Your task to perform on an android device: show emergency info Image 0: 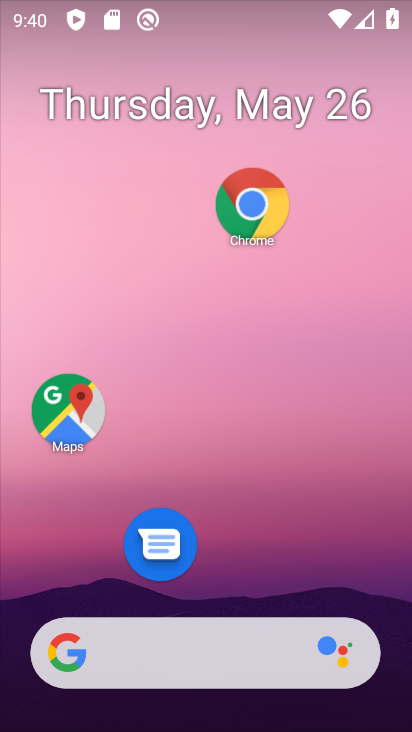
Step 0: press home button
Your task to perform on an android device: show emergency info Image 1: 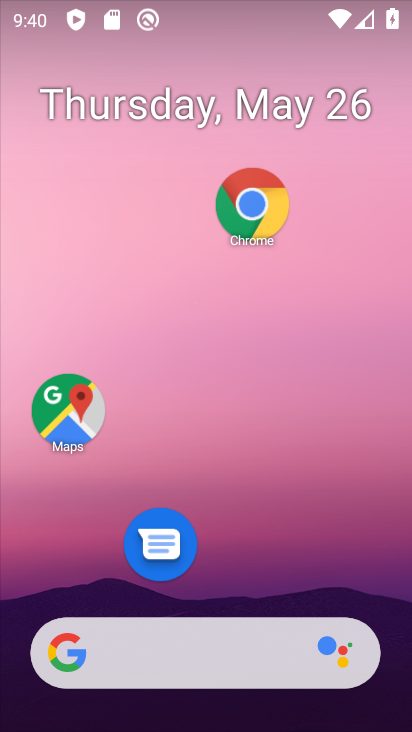
Step 1: drag from (216, 578) to (213, 78)
Your task to perform on an android device: show emergency info Image 2: 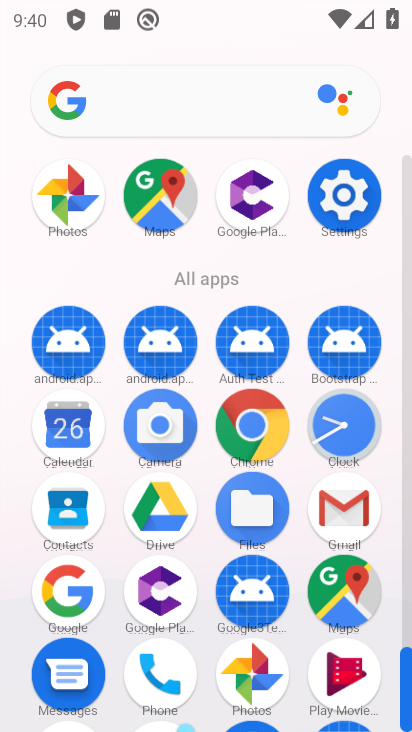
Step 2: click (342, 187)
Your task to perform on an android device: show emergency info Image 3: 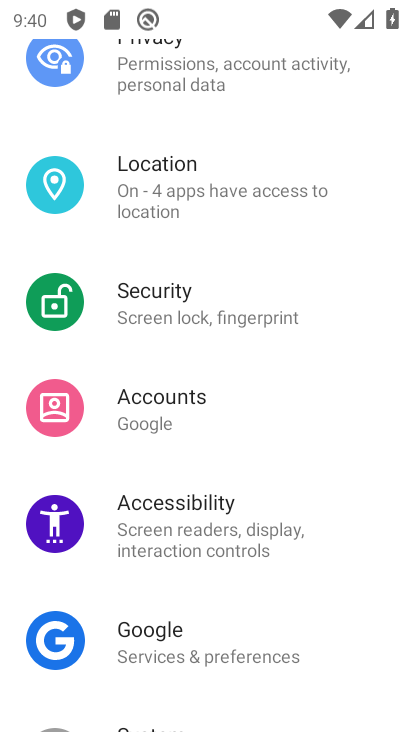
Step 3: drag from (222, 582) to (231, 91)
Your task to perform on an android device: show emergency info Image 4: 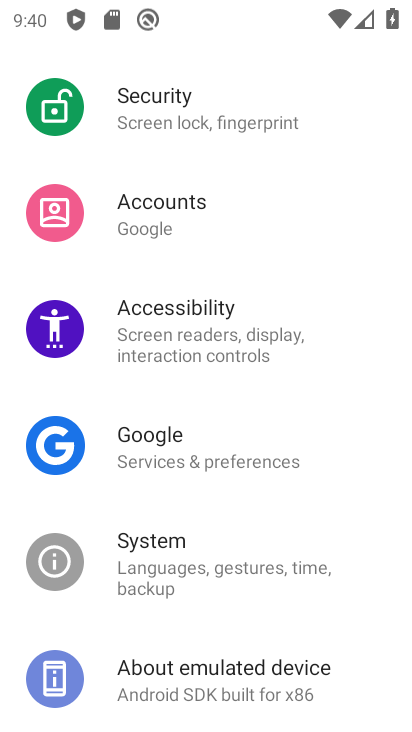
Step 4: click (260, 672)
Your task to perform on an android device: show emergency info Image 5: 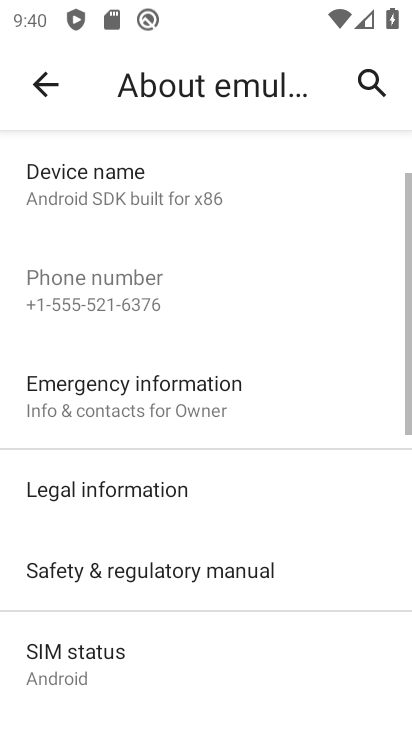
Step 5: click (243, 402)
Your task to perform on an android device: show emergency info Image 6: 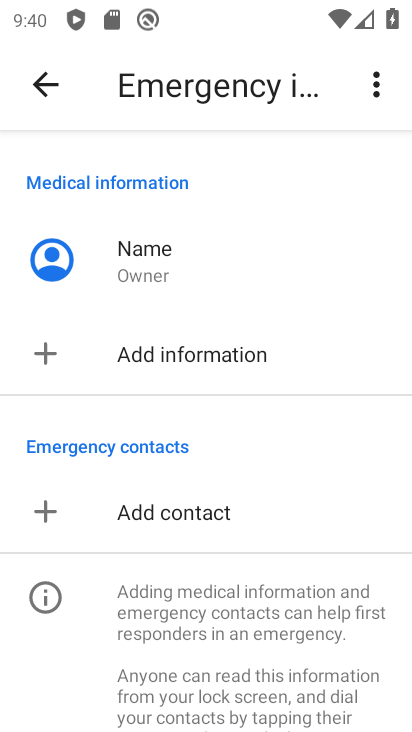
Step 6: task complete